Your task to perform on an android device: Open Yahoo.com Image 0: 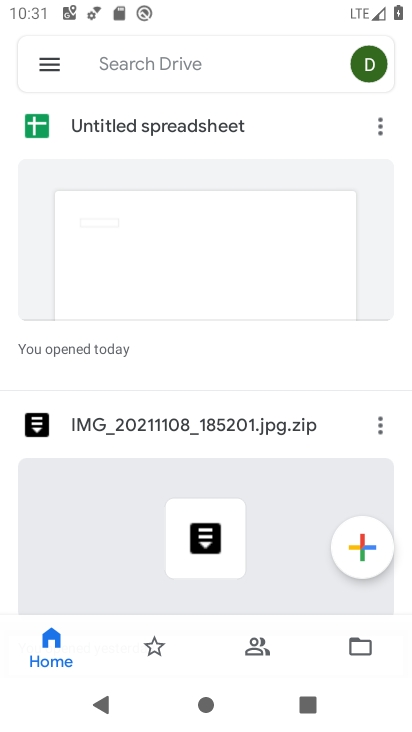
Step 0: press home button
Your task to perform on an android device: Open Yahoo.com Image 1: 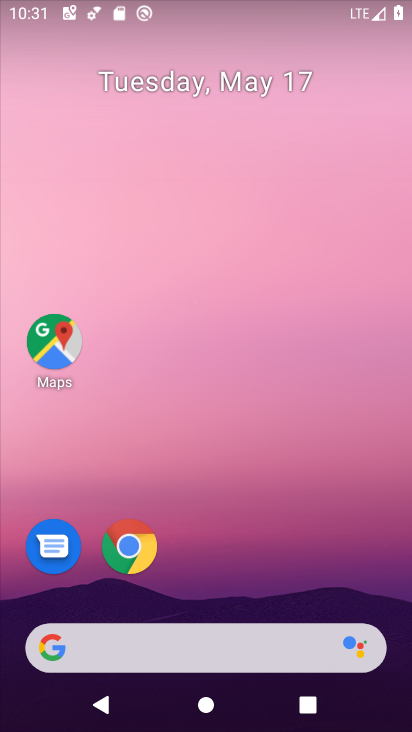
Step 1: click (132, 548)
Your task to perform on an android device: Open Yahoo.com Image 2: 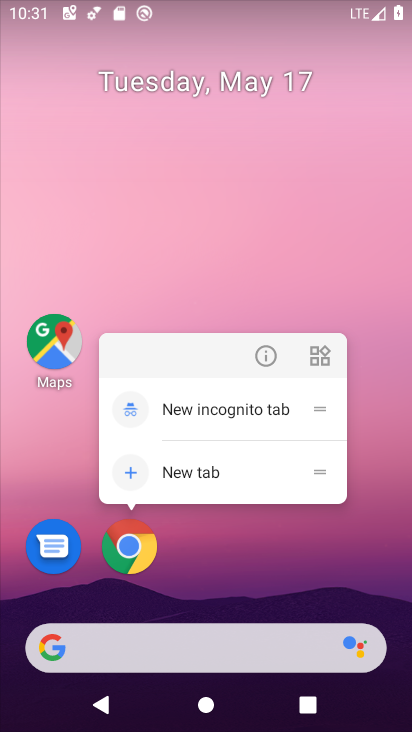
Step 2: click (132, 542)
Your task to perform on an android device: Open Yahoo.com Image 3: 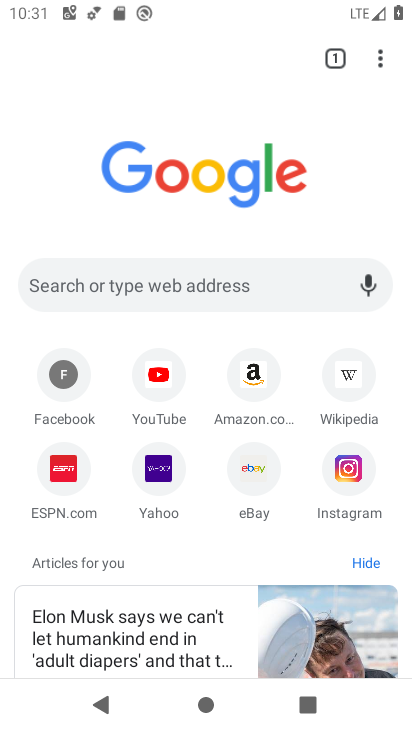
Step 3: click (157, 491)
Your task to perform on an android device: Open Yahoo.com Image 4: 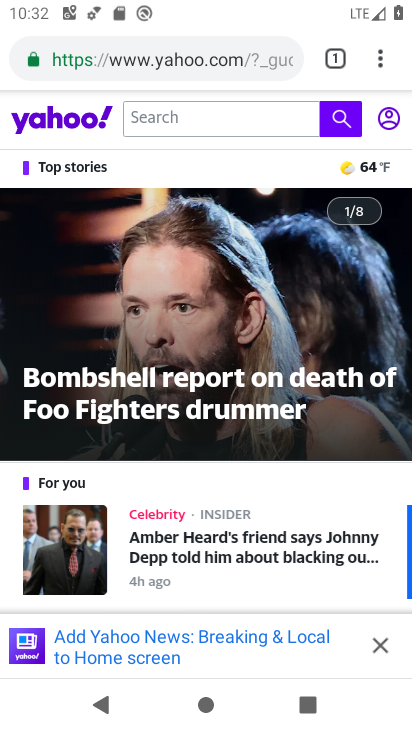
Step 4: task complete